Your task to perform on an android device: Open Google Image 0: 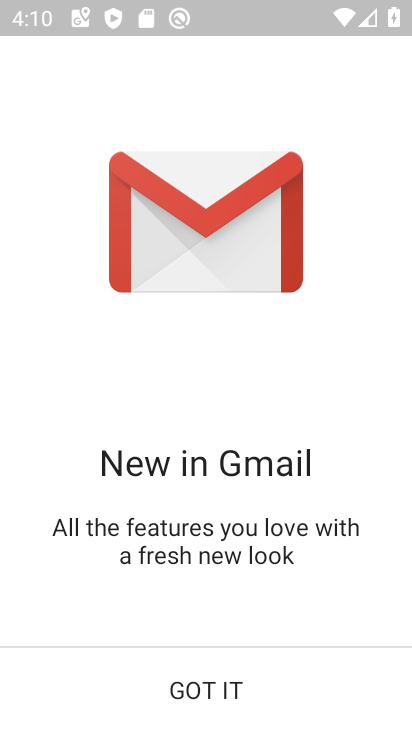
Step 0: click (206, 680)
Your task to perform on an android device: Open Google Image 1: 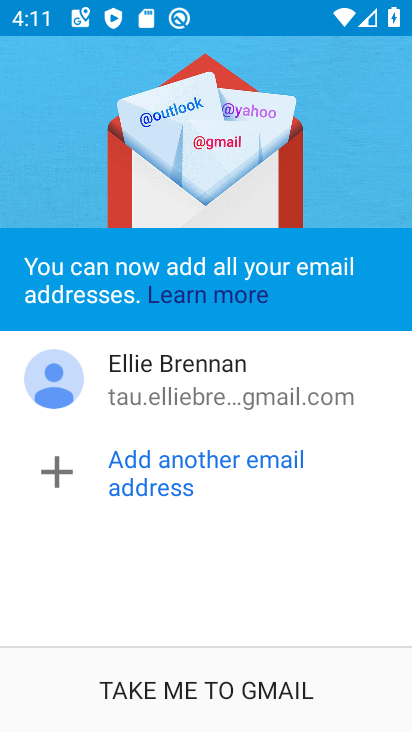
Step 1: press back button
Your task to perform on an android device: Open Google Image 2: 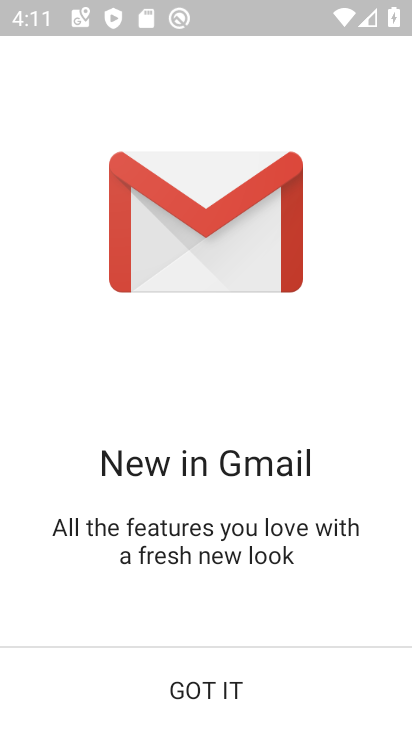
Step 2: press back button
Your task to perform on an android device: Open Google Image 3: 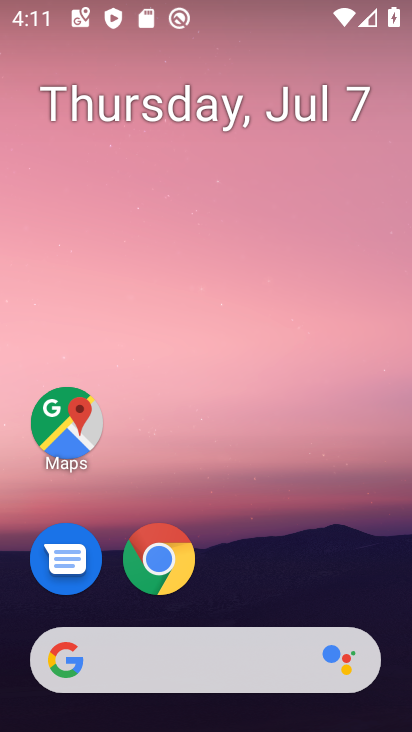
Step 3: drag from (150, 589) to (266, 57)
Your task to perform on an android device: Open Google Image 4: 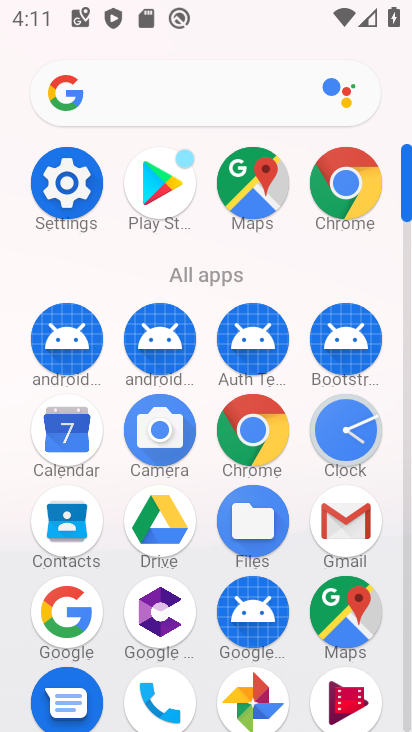
Step 4: click (74, 594)
Your task to perform on an android device: Open Google Image 5: 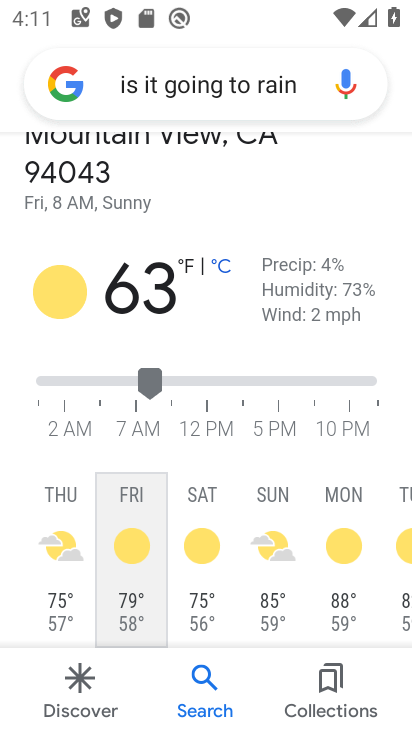
Step 5: task complete